Your task to perform on an android device: add a contact Image 0: 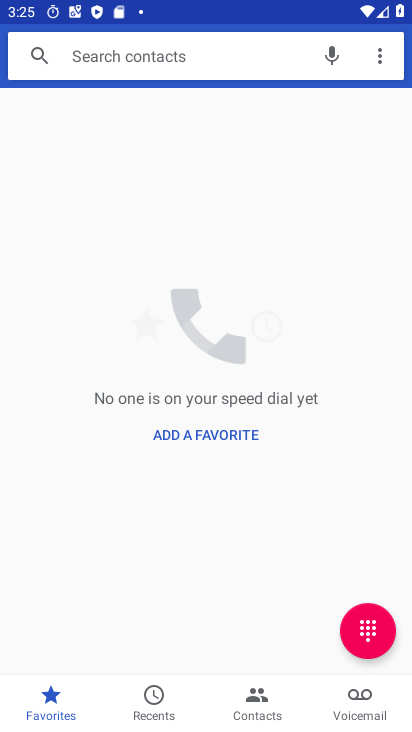
Step 0: click (262, 711)
Your task to perform on an android device: add a contact Image 1: 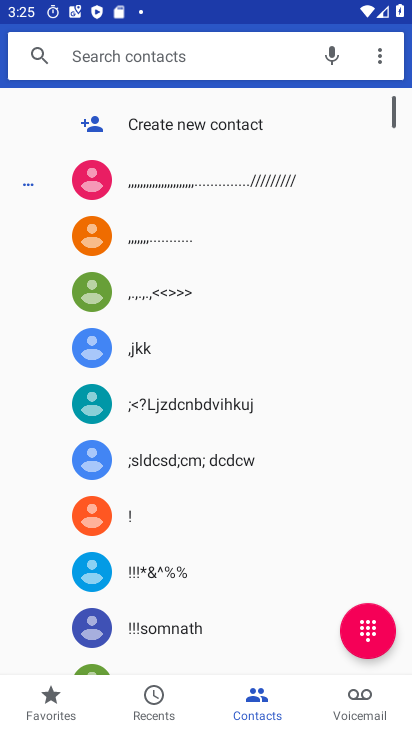
Step 1: press home button
Your task to perform on an android device: add a contact Image 2: 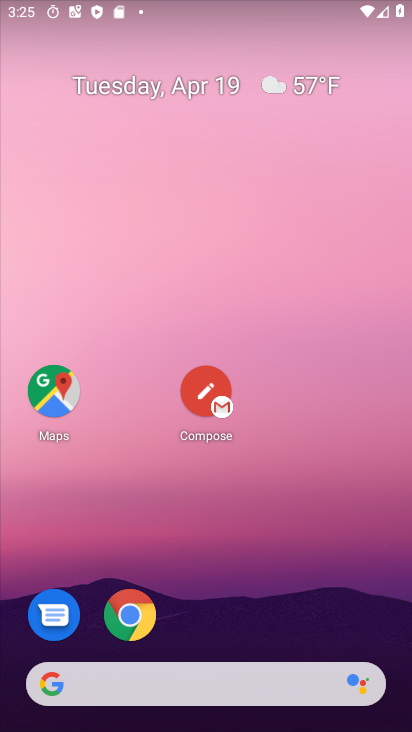
Step 2: drag from (245, 680) to (299, 72)
Your task to perform on an android device: add a contact Image 3: 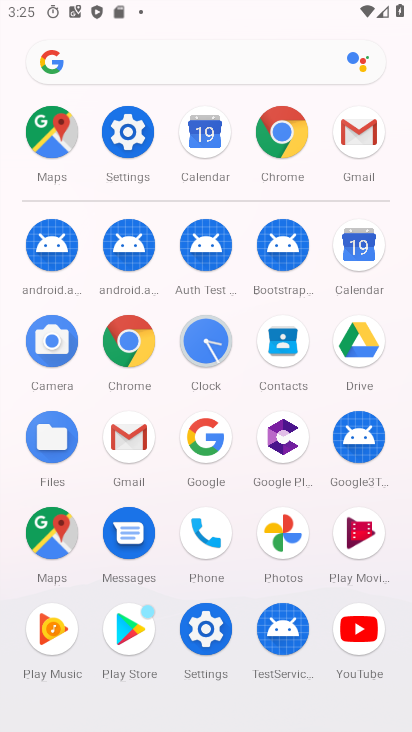
Step 3: click (291, 339)
Your task to perform on an android device: add a contact Image 4: 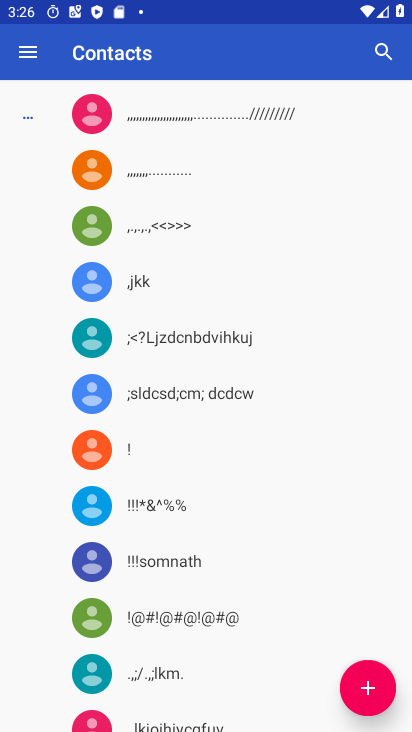
Step 4: click (361, 678)
Your task to perform on an android device: add a contact Image 5: 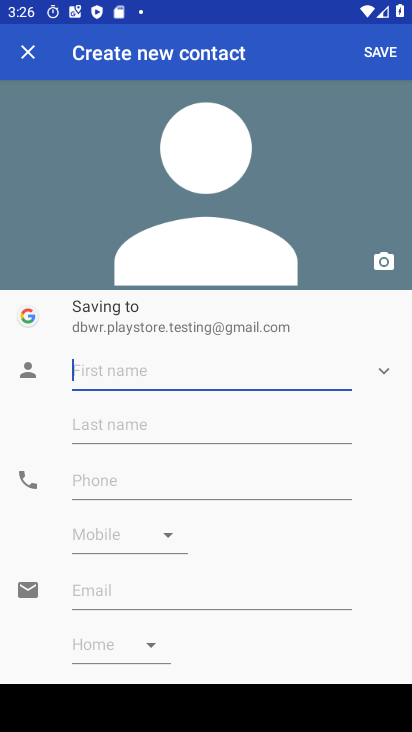
Step 5: type "sdsfsfdsfdsdf"
Your task to perform on an android device: add a contact Image 6: 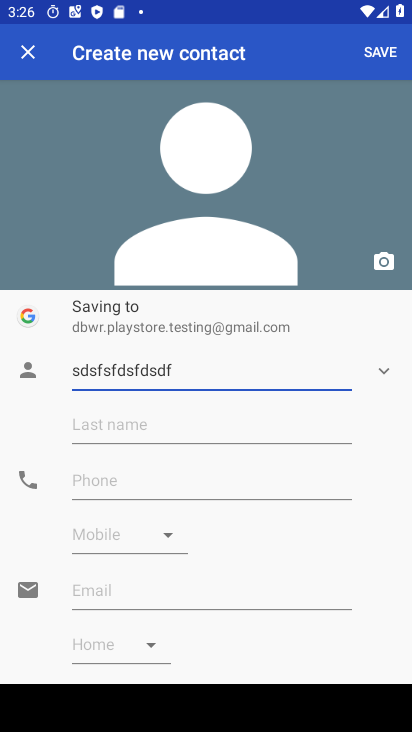
Step 6: click (225, 481)
Your task to perform on an android device: add a contact Image 7: 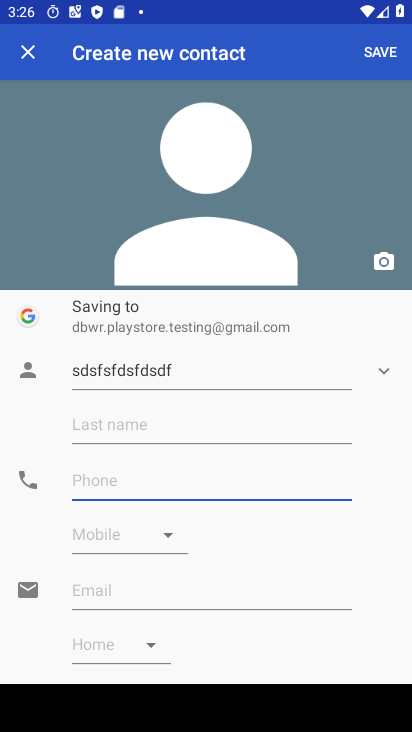
Step 7: type "65544444566"
Your task to perform on an android device: add a contact Image 8: 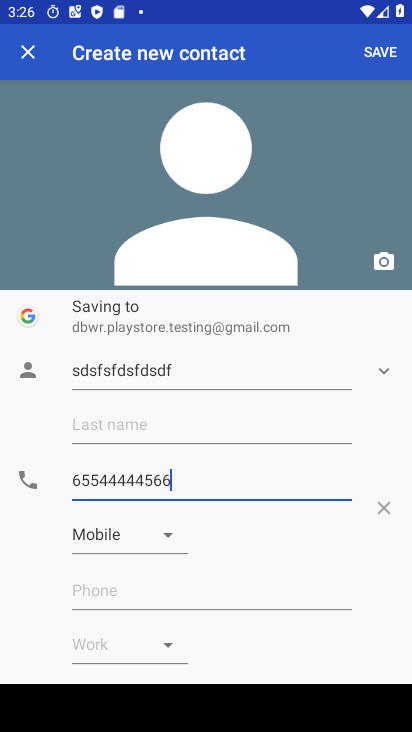
Step 8: click (374, 49)
Your task to perform on an android device: add a contact Image 9: 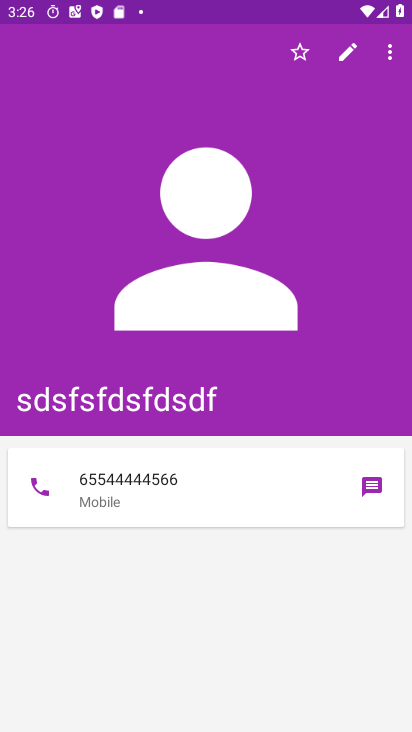
Step 9: task complete